Your task to perform on an android device: Add razer blackwidow to the cart on target Image 0: 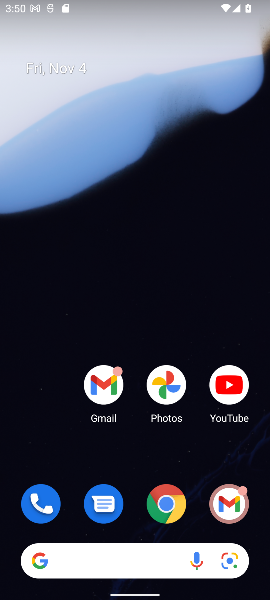
Step 0: click (172, 512)
Your task to perform on an android device: Add razer blackwidow to the cart on target Image 1: 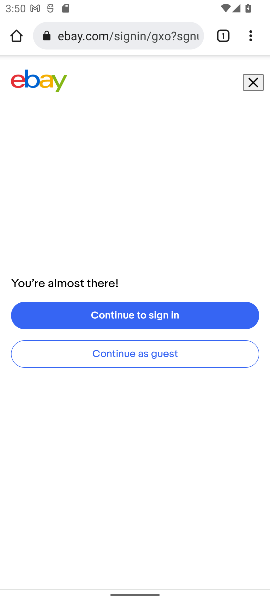
Step 1: click (93, 37)
Your task to perform on an android device: Add razer blackwidow to the cart on target Image 2: 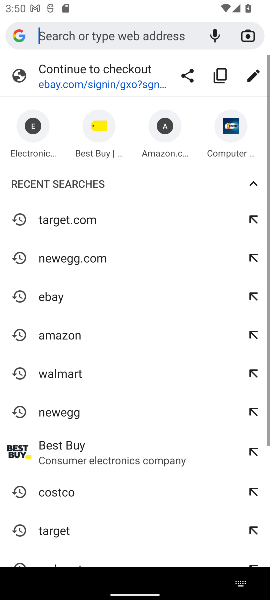
Step 2: click (74, 225)
Your task to perform on an android device: Add razer blackwidow to the cart on target Image 3: 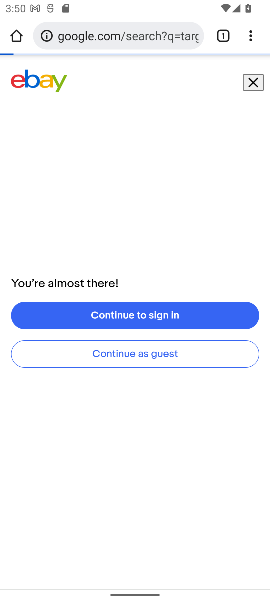
Step 3: click (113, 35)
Your task to perform on an android device: Add razer blackwidow to the cart on target Image 4: 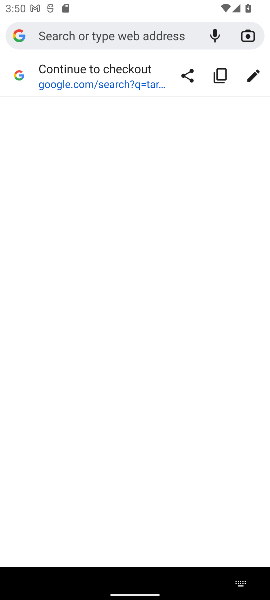
Step 4: type "target.com"
Your task to perform on an android device: Add razer blackwidow to the cart on target Image 5: 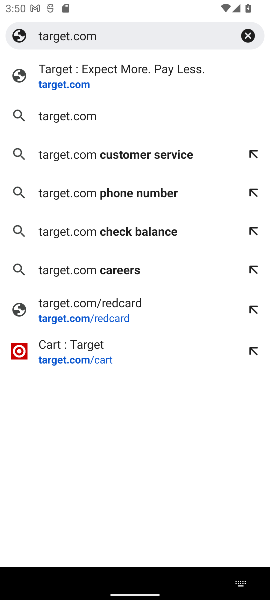
Step 5: click (62, 80)
Your task to perform on an android device: Add razer blackwidow to the cart on target Image 6: 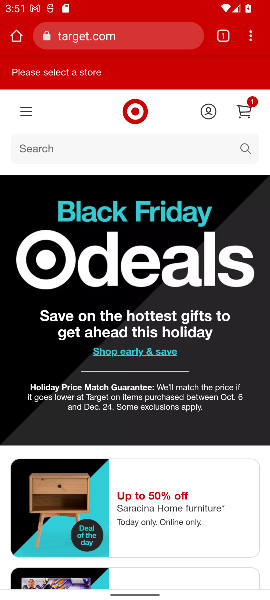
Step 6: click (246, 152)
Your task to perform on an android device: Add razer blackwidow to the cart on target Image 7: 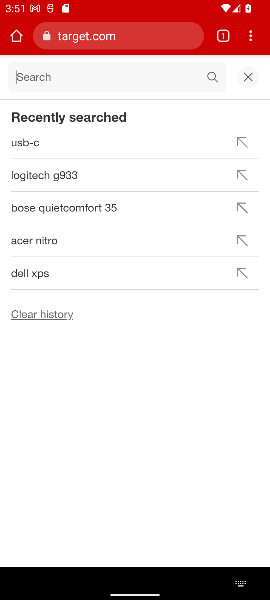
Step 7: type " razer blackwidow"
Your task to perform on an android device: Add razer blackwidow to the cart on target Image 8: 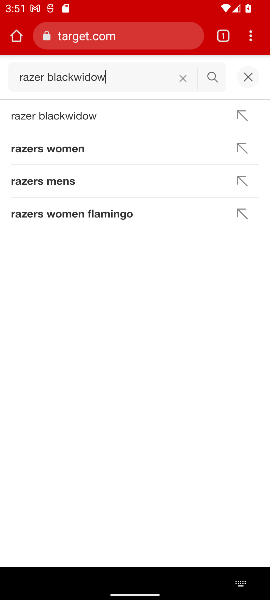
Step 8: click (58, 122)
Your task to perform on an android device: Add razer blackwidow to the cart on target Image 9: 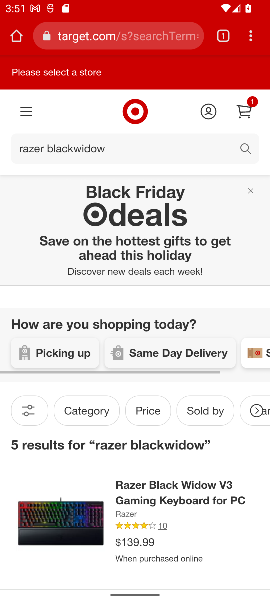
Step 9: click (146, 503)
Your task to perform on an android device: Add razer blackwidow to the cart on target Image 10: 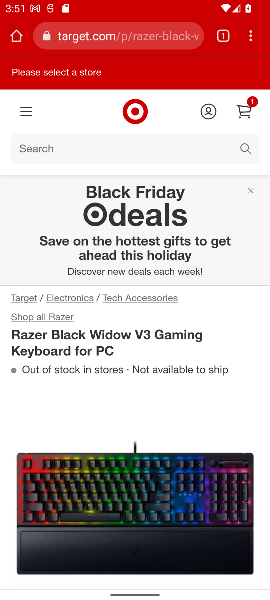
Step 10: drag from (138, 490) to (138, 260)
Your task to perform on an android device: Add razer blackwidow to the cart on target Image 11: 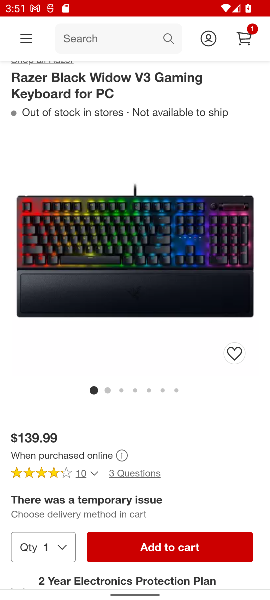
Step 11: drag from (132, 469) to (152, 280)
Your task to perform on an android device: Add razer blackwidow to the cart on target Image 12: 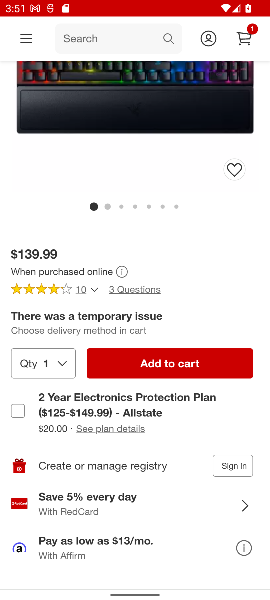
Step 12: click (164, 367)
Your task to perform on an android device: Add razer blackwidow to the cart on target Image 13: 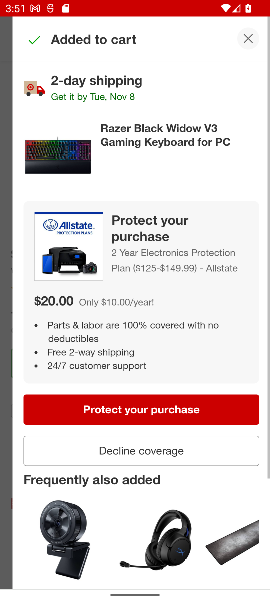
Step 13: task complete